Your task to perform on an android device: toggle pop-ups in chrome Image 0: 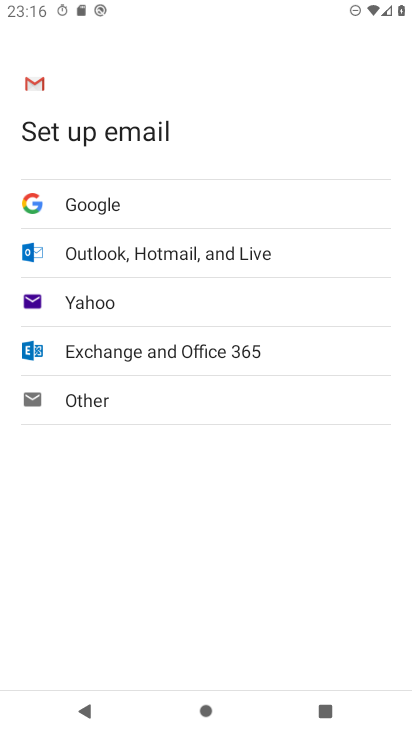
Step 0: press home button
Your task to perform on an android device: toggle pop-ups in chrome Image 1: 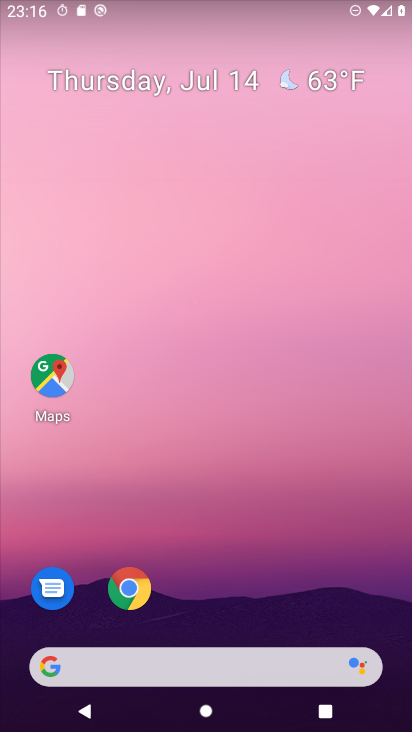
Step 1: drag from (344, 544) to (335, 108)
Your task to perform on an android device: toggle pop-ups in chrome Image 2: 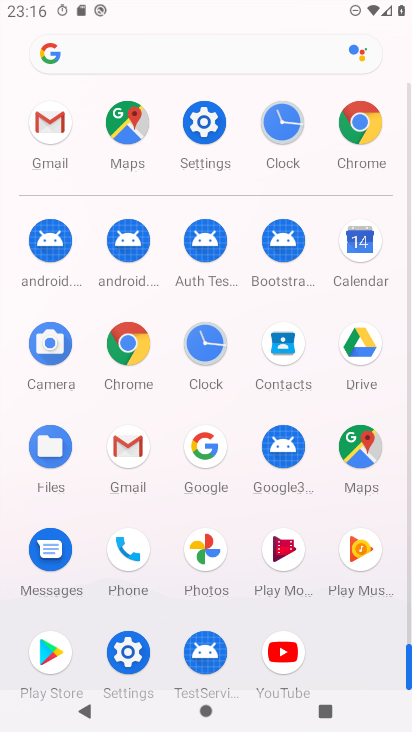
Step 2: click (365, 123)
Your task to perform on an android device: toggle pop-ups in chrome Image 3: 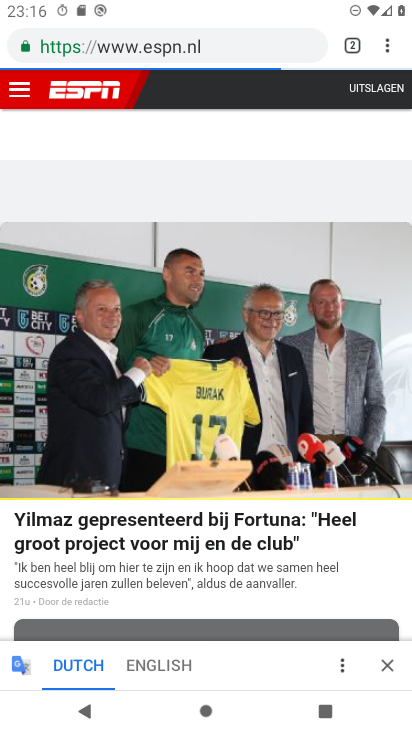
Step 3: click (385, 49)
Your task to perform on an android device: toggle pop-ups in chrome Image 4: 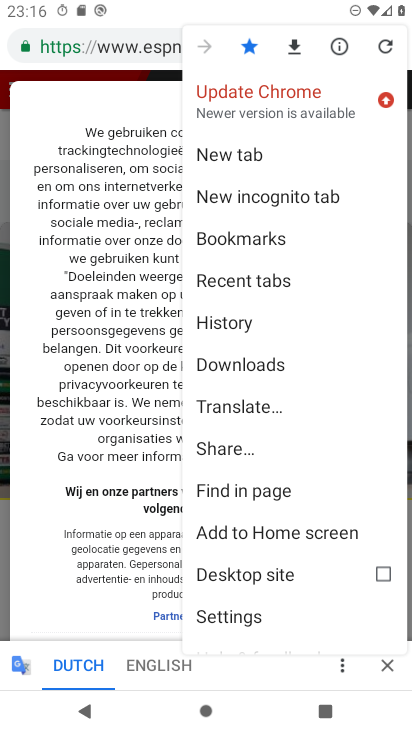
Step 4: drag from (331, 354) to (342, 223)
Your task to perform on an android device: toggle pop-ups in chrome Image 5: 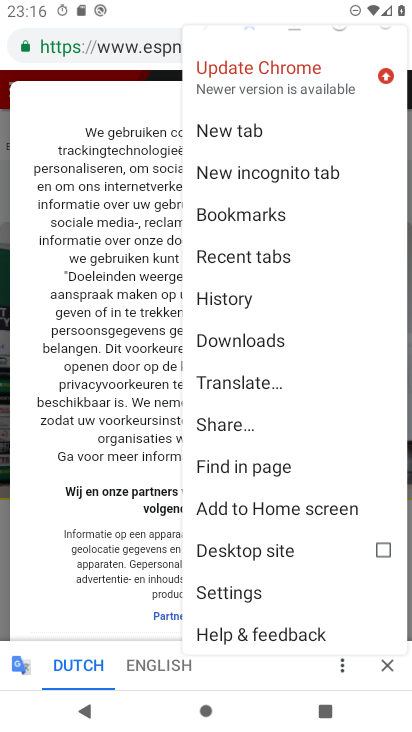
Step 5: click (297, 597)
Your task to perform on an android device: toggle pop-ups in chrome Image 6: 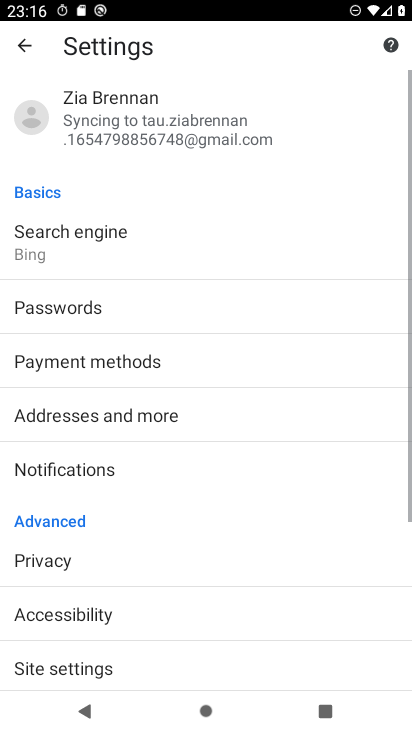
Step 6: drag from (313, 569) to (315, 481)
Your task to perform on an android device: toggle pop-ups in chrome Image 7: 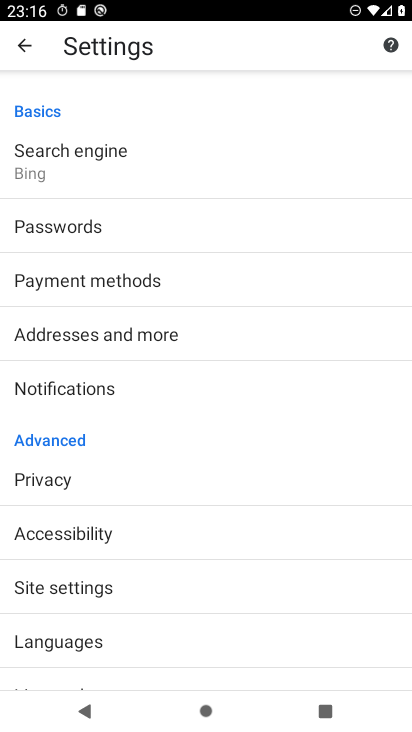
Step 7: drag from (316, 566) to (322, 478)
Your task to perform on an android device: toggle pop-ups in chrome Image 8: 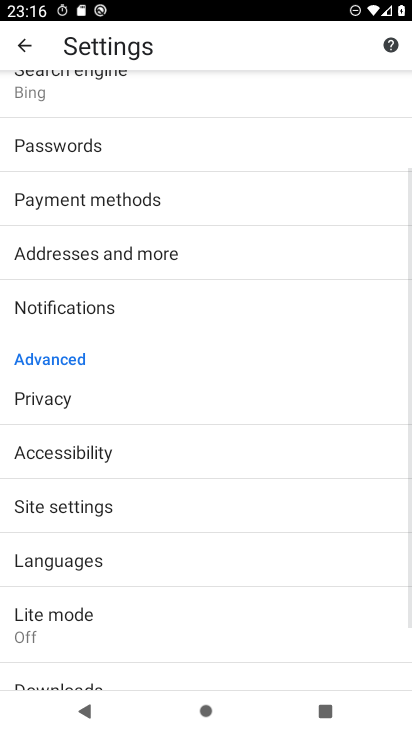
Step 8: drag from (321, 581) to (327, 512)
Your task to perform on an android device: toggle pop-ups in chrome Image 9: 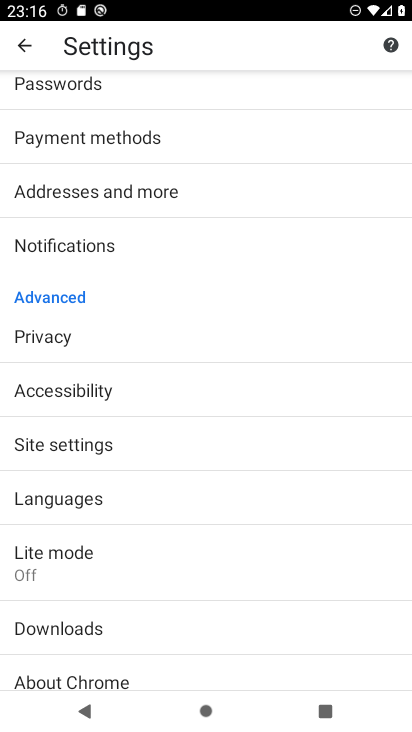
Step 9: click (299, 449)
Your task to perform on an android device: toggle pop-ups in chrome Image 10: 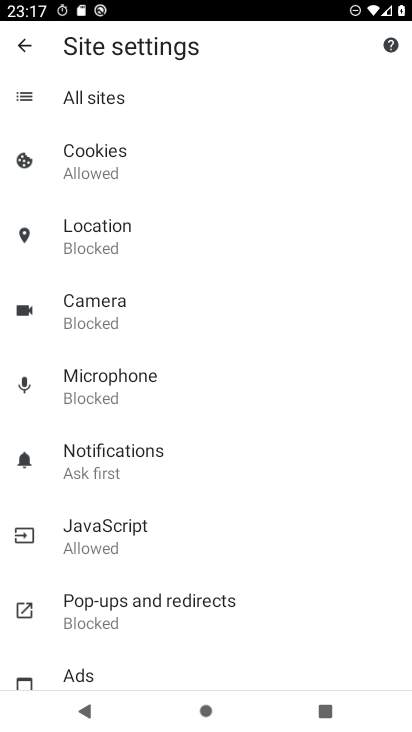
Step 10: drag from (318, 483) to (319, 391)
Your task to perform on an android device: toggle pop-ups in chrome Image 11: 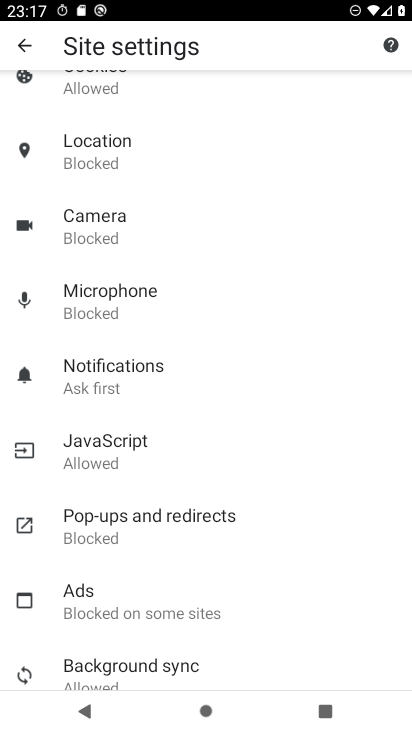
Step 11: drag from (323, 460) to (326, 379)
Your task to perform on an android device: toggle pop-ups in chrome Image 12: 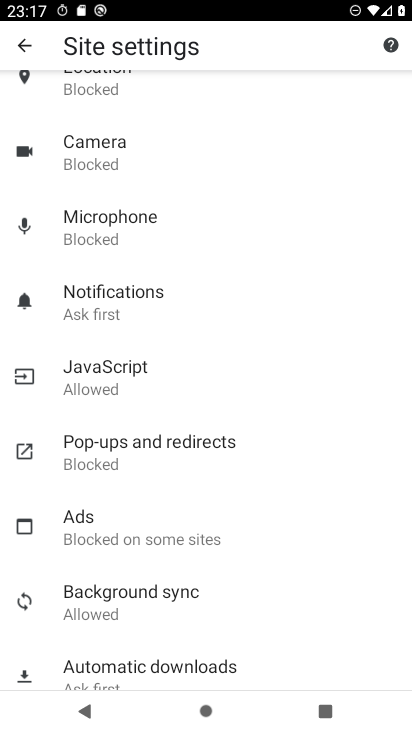
Step 12: drag from (329, 441) to (330, 370)
Your task to perform on an android device: toggle pop-ups in chrome Image 13: 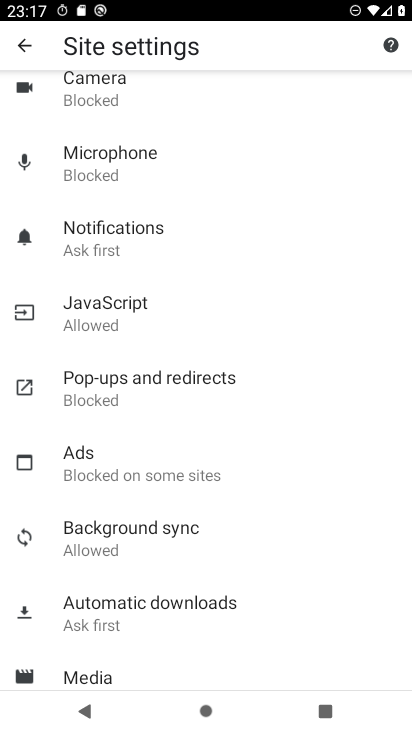
Step 13: drag from (342, 478) to (347, 414)
Your task to perform on an android device: toggle pop-ups in chrome Image 14: 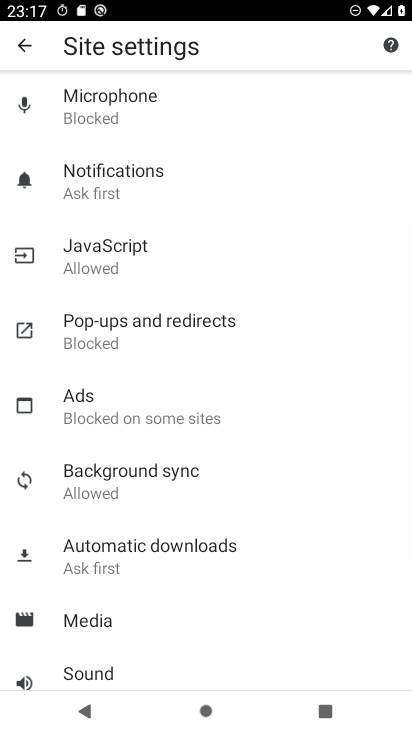
Step 14: drag from (346, 513) to (346, 432)
Your task to perform on an android device: toggle pop-ups in chrome Image 15: 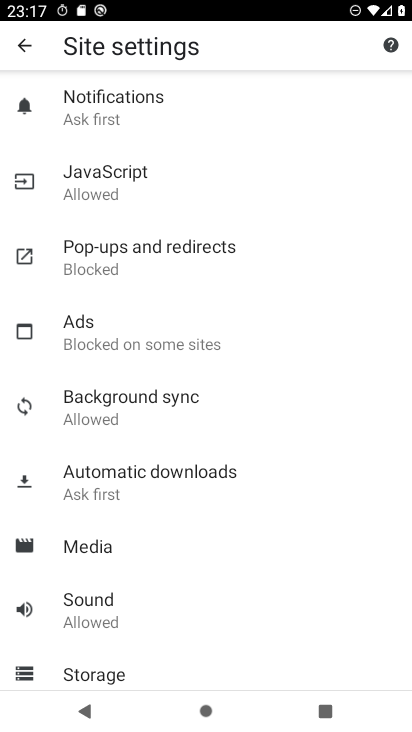
Step 15: drag from (337, 501) to (339, 375)
Your task to perform on an android device: toggle pop-ups in chrome Image 16: 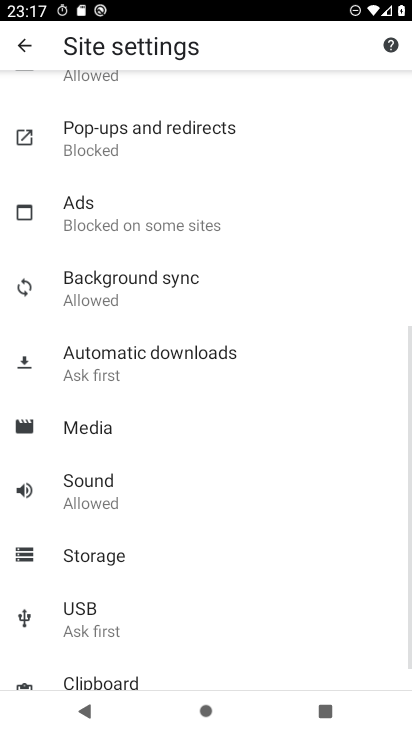
Step 16: drag from (336, 494) to (337, 357)
Your task to perform on an android device: toggle pop-ups in chrome Image 17: 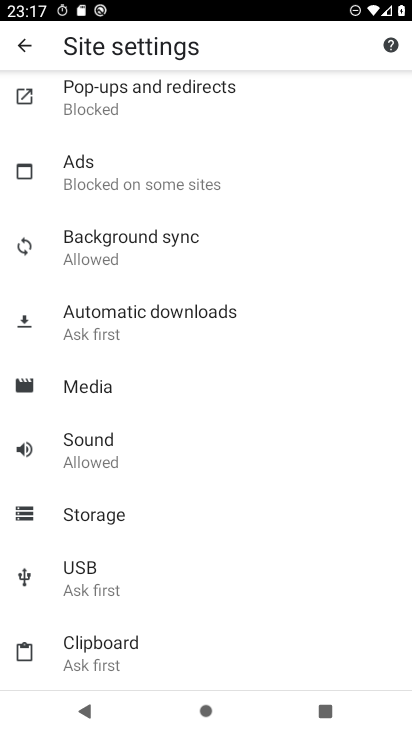
Step 17: drag from (337, 284) to (336, 356)
Your task to perform on an android device: toggle pop-ups in chrome Image 18: 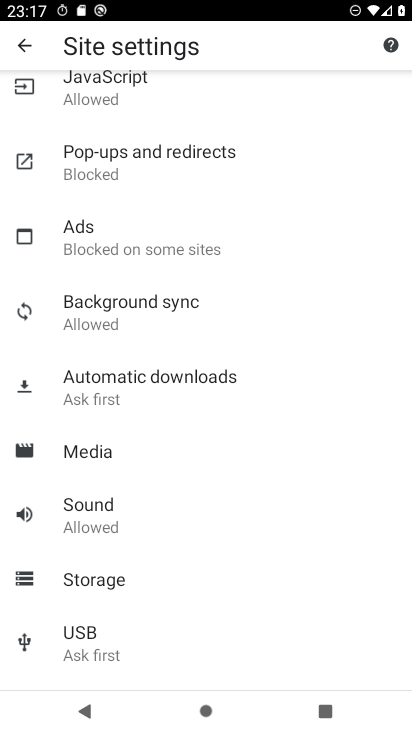
Step 18: drag from (325, 253) to (324, 312)
Your task to perform on an android device: toggle pop-ups in chrome Image 19: 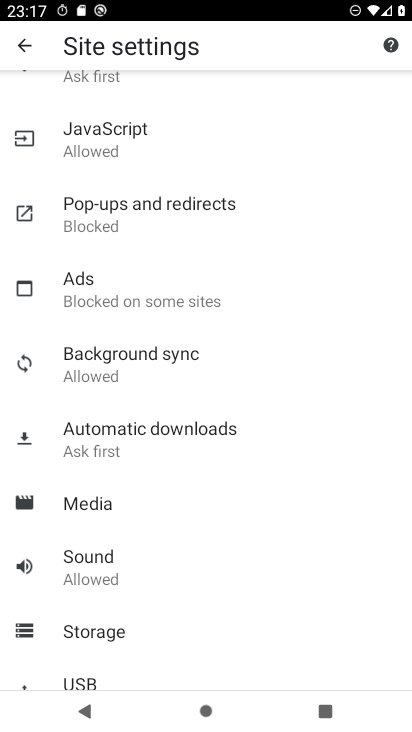
Step 19: drag from (324, 265) to (325, 357)
Your task to perform on an android device: toggle pop-ups in chrome Image 20: 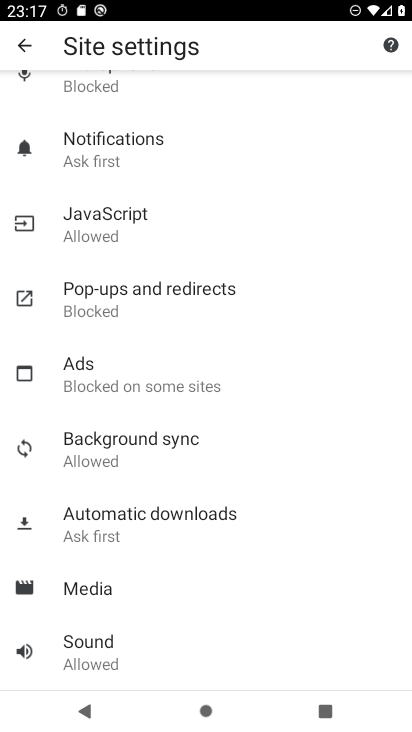
Step 20: drag from (315, 276) to (315, 381)
Your task to perform on an android device: toggle pop-ups in chrome Image 21: 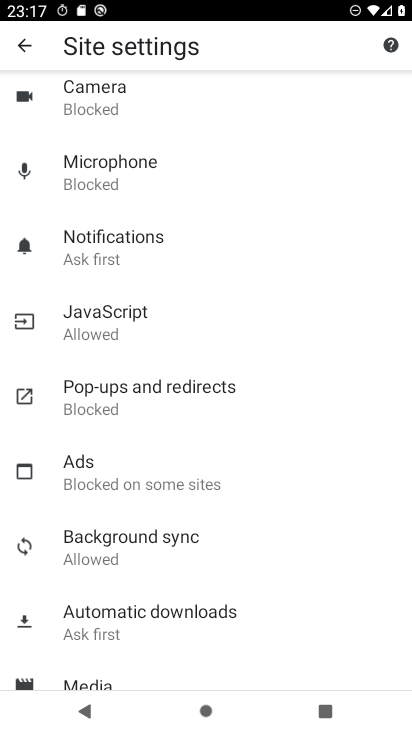
Step 21: click (258, 415)
Your task to perform on an android device: toggle pop-ups in chrome Image 22: 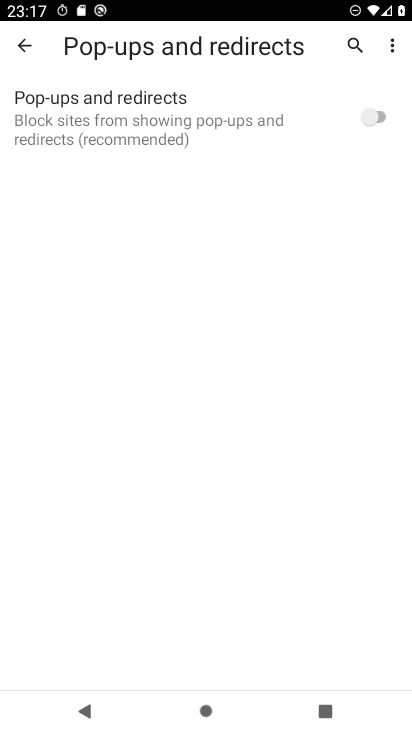
Step 22: click (371, 123)
Your task to perform on an android device: toggle pop-ups in chrome Image 23: 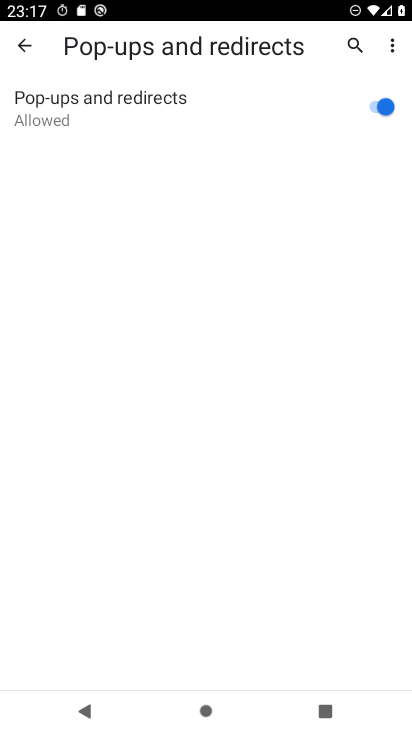
Step 23: task complete